Your task to perform on an android device: Open Google Chrome Image 0: 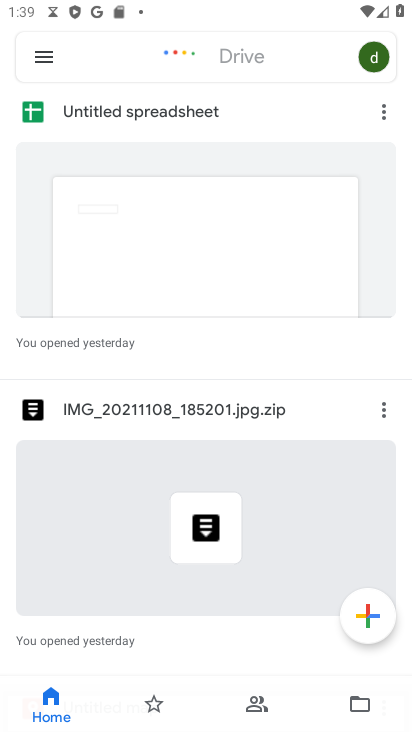
Step 0: press home button
Your task to perform on an android device: Open Google Chrome Image 1: 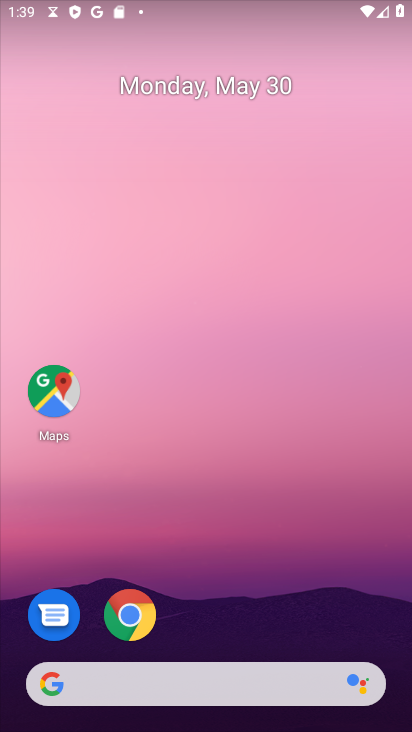
Step 1: drag from (340, 562) to (359, 73)
Your task to perform on an android device: Open Google Chrome Image 2: 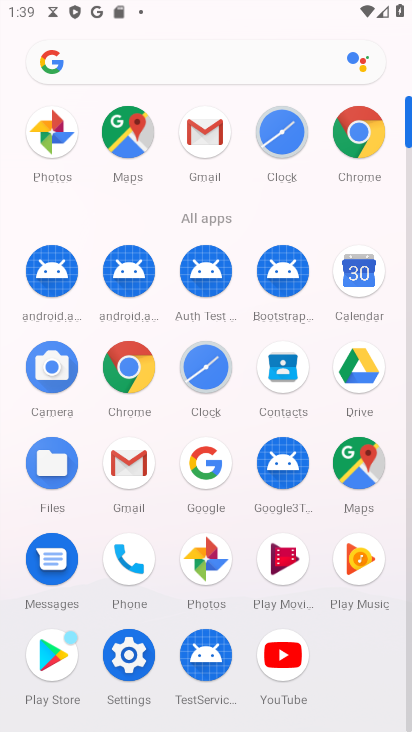
Step 2: click (345, 132)
Your task to perform on an android device: Open Google Chrome Image 3: 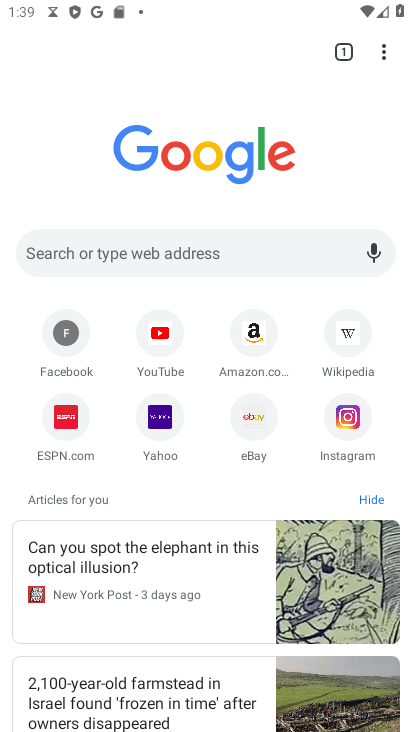
Step 3: task complete